Your task to perform on an android device: clear history in the chrome app Image 0: 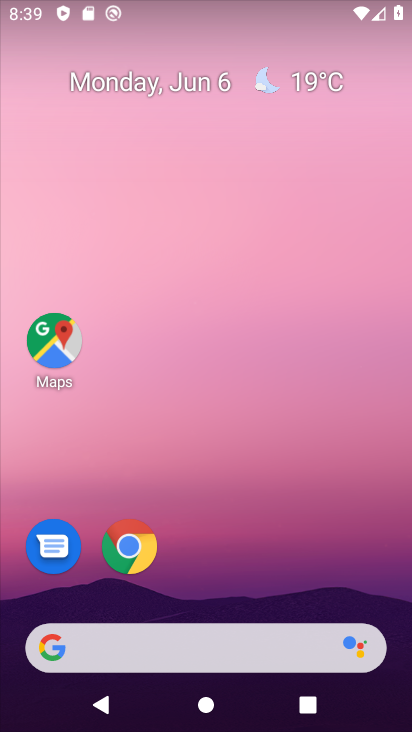
Step 0: click (105, 560)
Your task to perform on an android device: clear history in the chrome app Image 1: 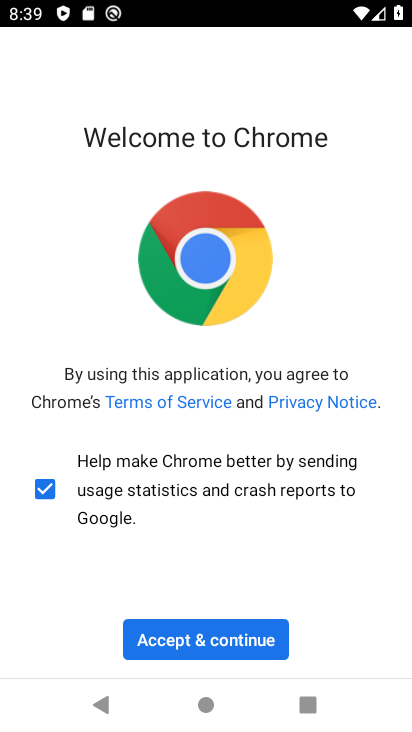
Step 1: click (245, 621)
Your task to perform on an android device: clear history in the chrome app Image 2: 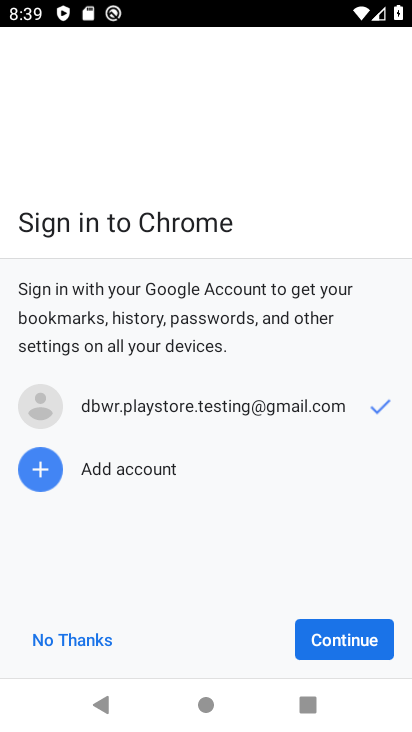
Step 2: click (362, 652)
Your task to perform on an android device: clear history in the chrome app Image 3: 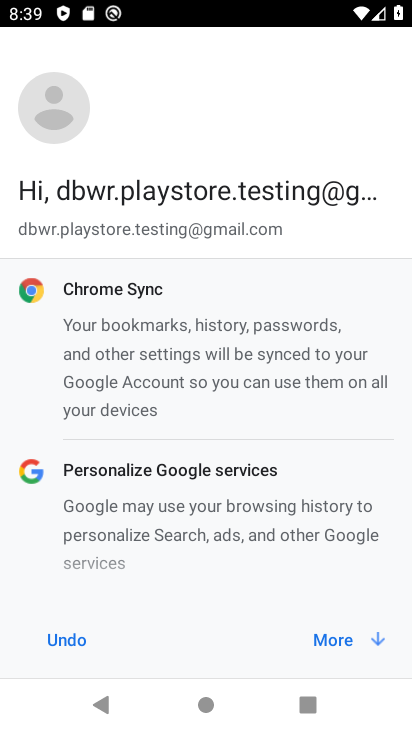
Step 3: click (364, 634)
Your task to perform on an android device: clear history in the chrome app Image 4: 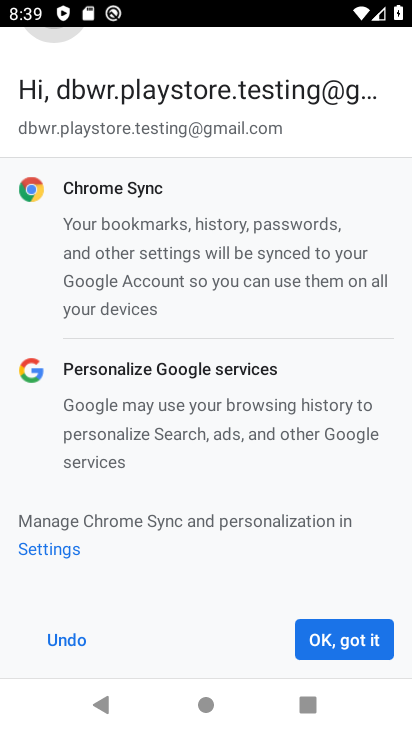
Step 4: click (364, 633)
Your task to perform on an android device: clear history in the chrome app Image 5: 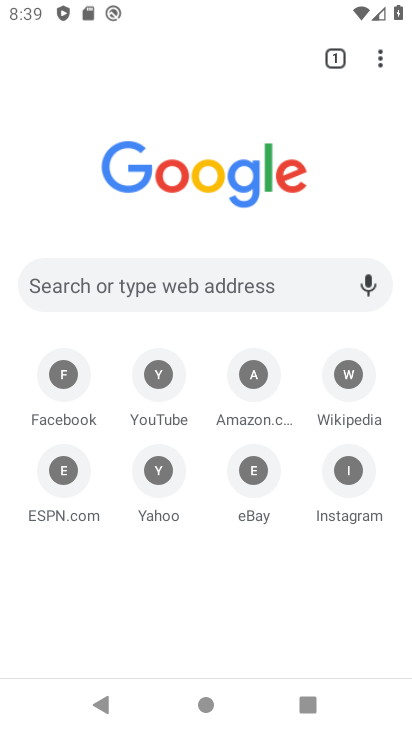
Step 5: click (368, 56)
Your task to perform on an android device: clear history in the chrome app Image 6: 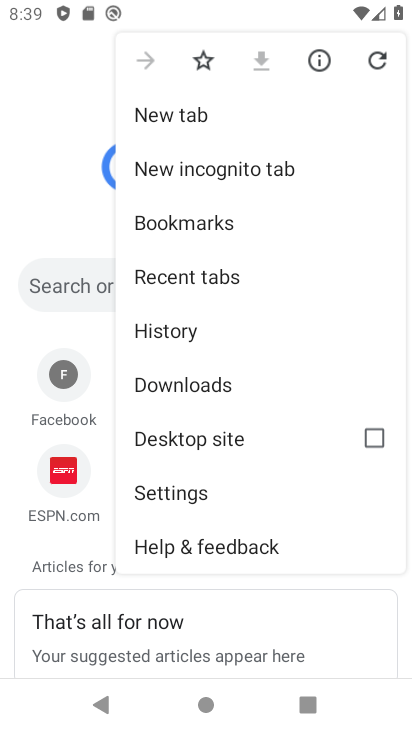
Step 6: click (152, 323)
Your task to perform on an android device: clear history in the chrome app Image 7: 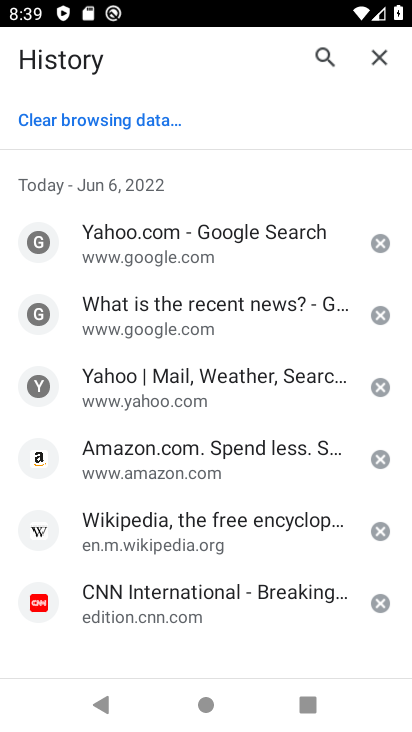
Step 7: click (85, 125)
Your task to perform on an android device: clear history in the chrome app Image 8: 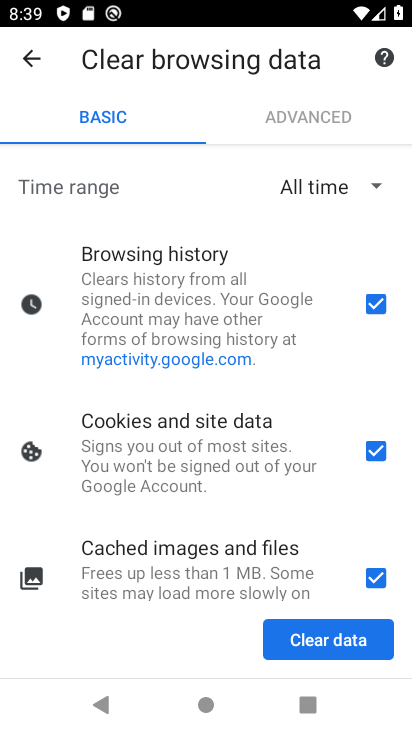
Step 8: click (375, 455)
Your task to perform on an android device: clear history in the chrome app Image 9: 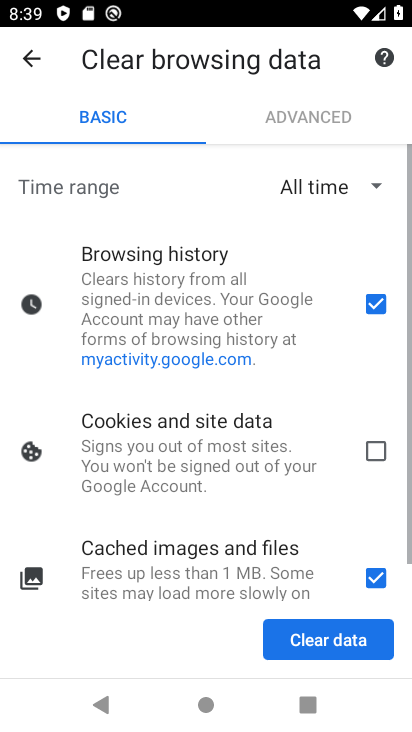
Step 9: click (370, 577)
Your task to perform on an android device: clear history in the chrome app Image 10: 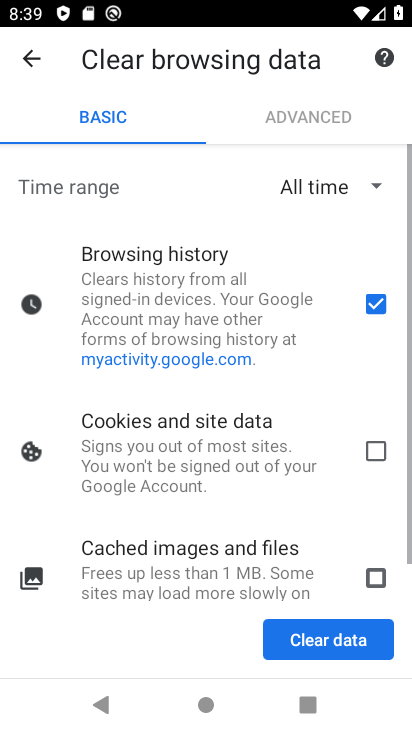
Step 10: click (347, 629)
Your task to perform on an android device: clear history in the chrome app Image 11: 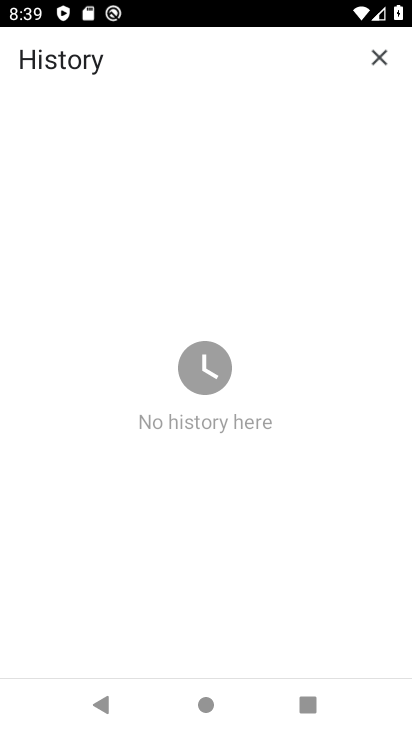
Step 11: task complete